Your task to perform on an android device: toggle location history Image 0: 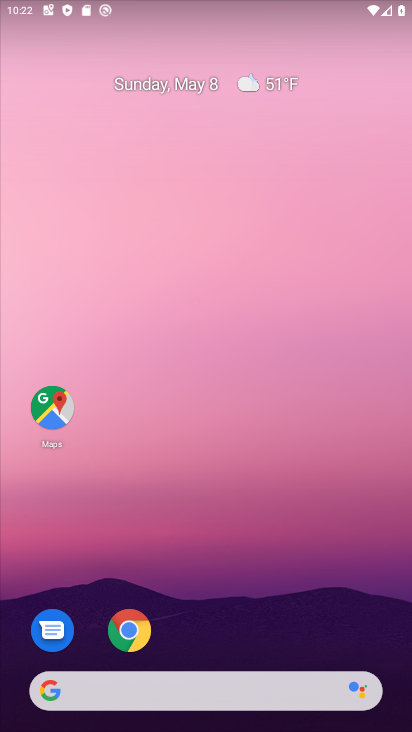
Step 0: drag from (384, 658) to (232, 6)
Your task to perform on an android device: toggle location history Image 1: 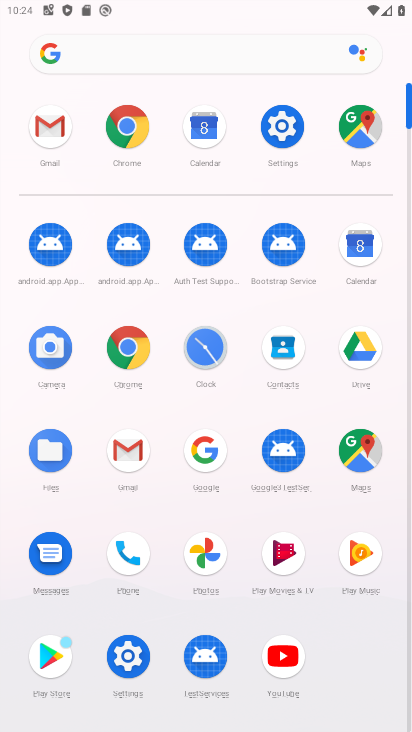
Step 1: click (125, 655)
Your task to perform on an android device: toggle location history Image 2: 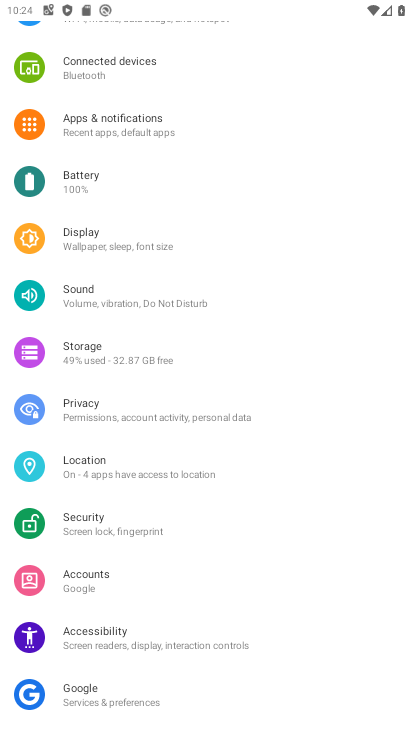
Step 2: click (125, 471)
Your task to perform on an android device: toggle location history Image 3: 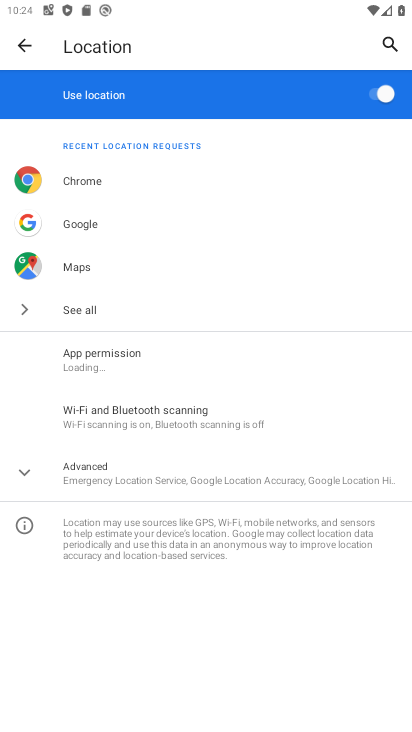
Step 3: click (66, 472)
Your task to perform on an android device: toggle location history Image 4: 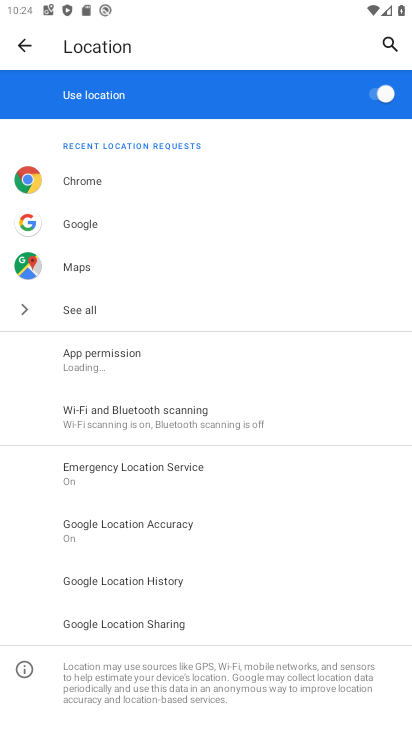
Step 4: click (148, 572)
Your task to perform on an android device: toggle location history Image 5: 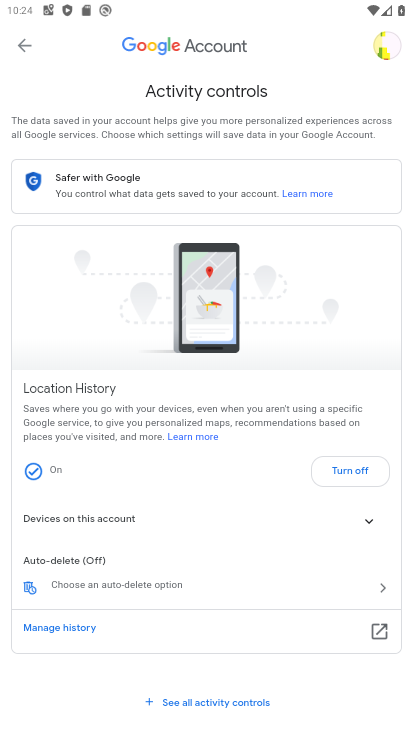
Step 5: click (334, 469)
Your task to perform on an android device: toggle location history Image 6: 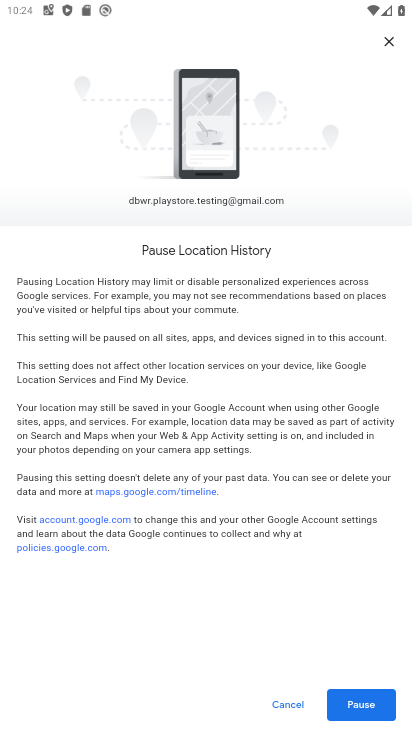
Step 6: task complete